Your task to perform on an android device: change notifications settings Image 0: 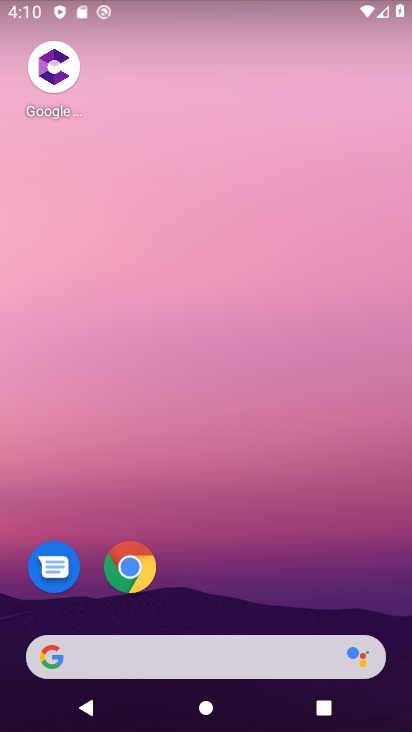
Step 0: drag from (237, 628) to (236, 30)
Your task to perform on an android device: change notifications settings Image 1: 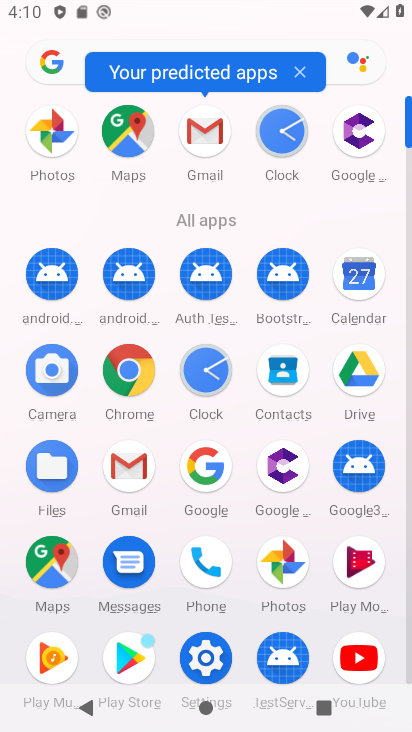
Step 1: click (200, 659)
Your task to perform on an android device: change notifications settings Image 2: 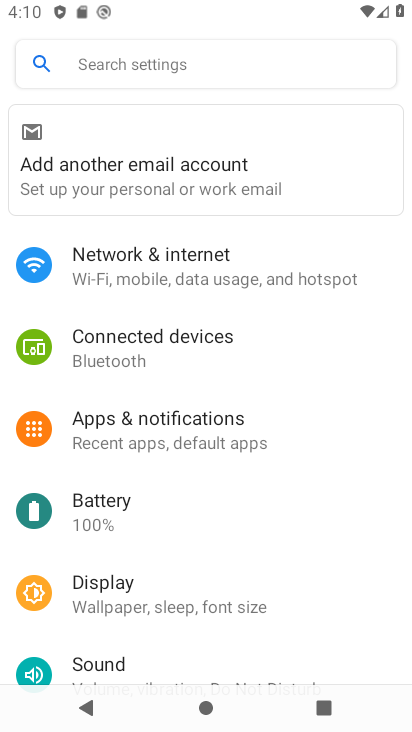
Step 2: click (180, 429)
Your task to perform on an android device: change notifications settings Image 3: 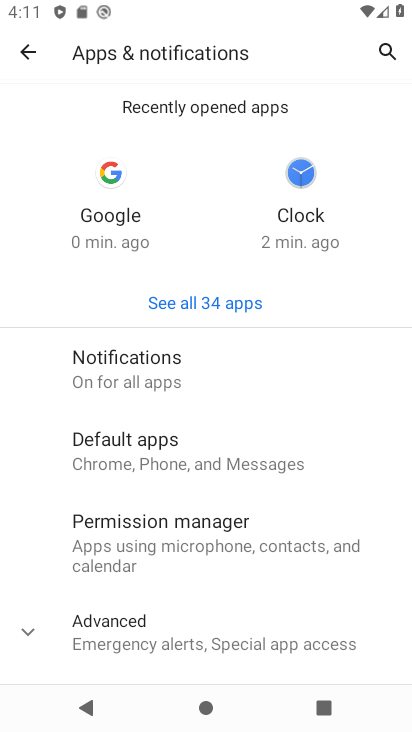
Step 3: click (162, 349)
Your task to perform on an android device: change notifications settings Image 4: 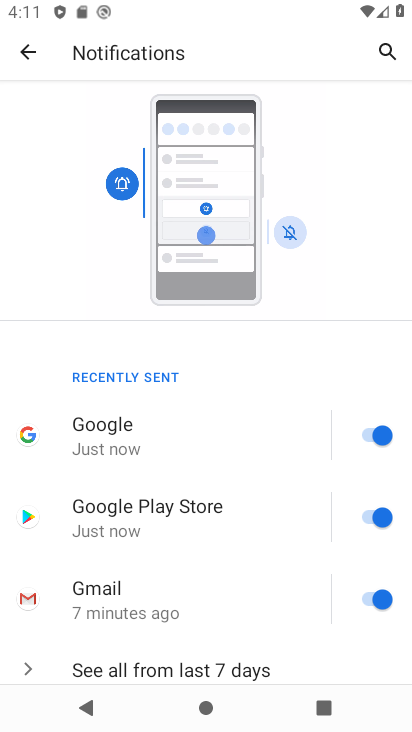
Step 4: drag from (173, 611) to (149, 292)
Your task to perform on an android device: change notifications settings Image 5: 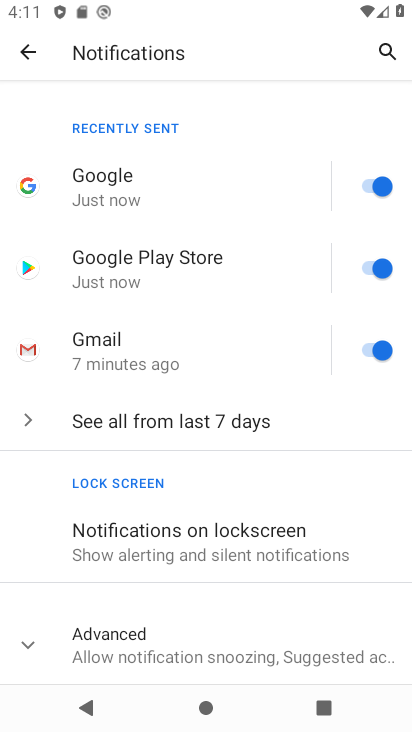
Step 5: click (174, 420)
Your task to perform on an android device: change notifications settings Image 6: 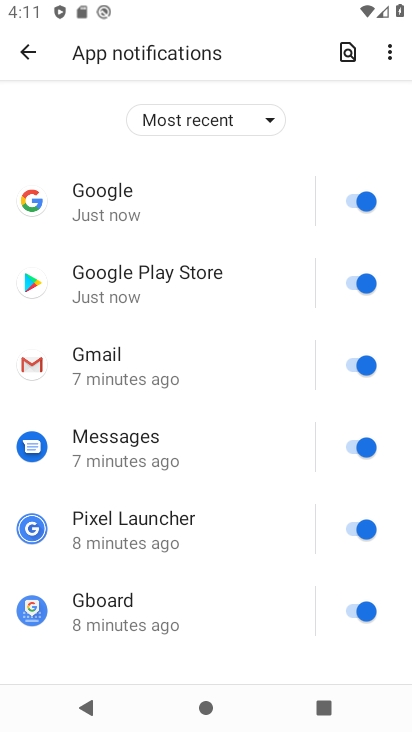
Step 6: click (366, 194)
Your task to perform on an android device: change notifications settings Image 7: 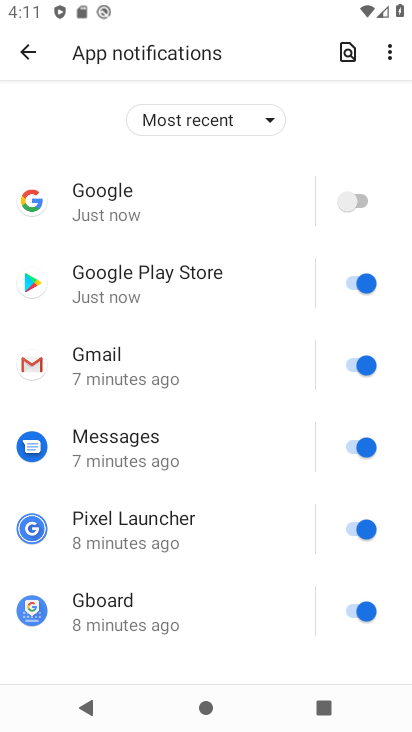
Step 7: click (369, 281)
Your task to perform on an android device: change notifications settings Image 8: 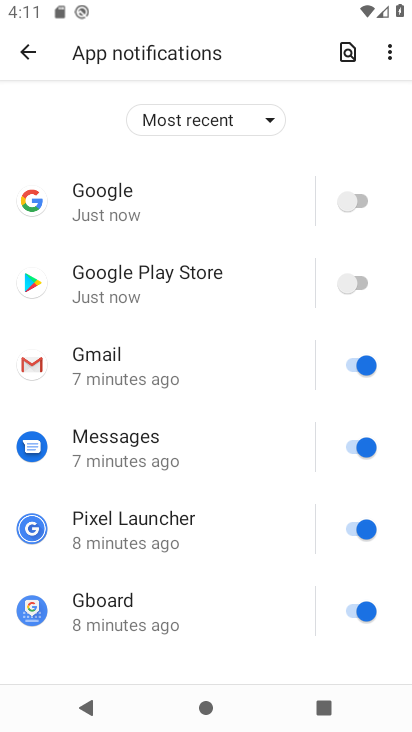
Step 8: click (372, 366)
Your task to perform on an android device: change notifications settings Image 9: 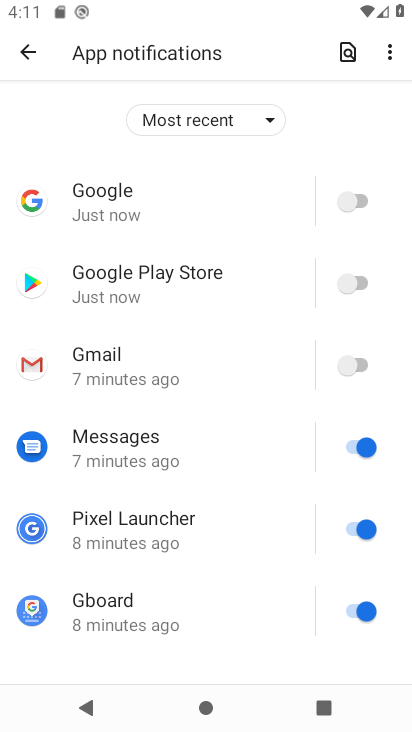
Step 9: click (352, 443)
Your task to perform on an android device: change notifications settings Image 10: 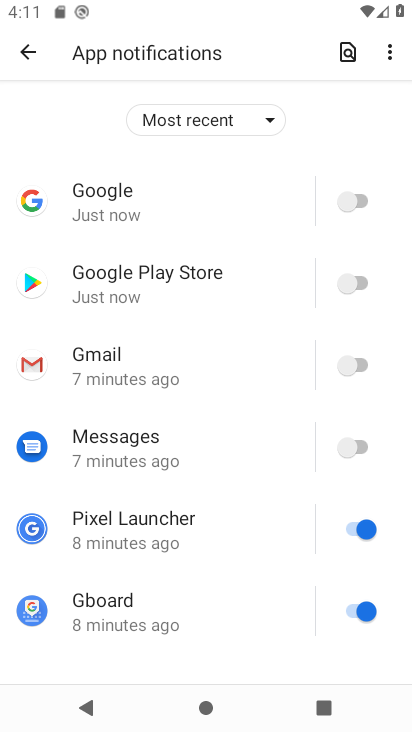
Step 10: click (360, 533)
Your task to perform on an android device: change notifications settings Image 11: 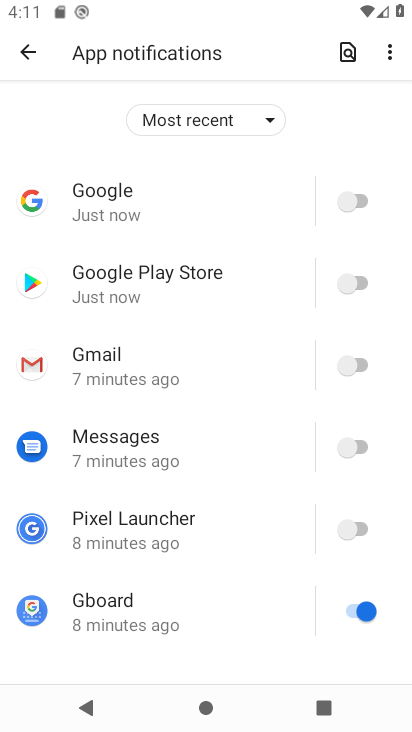
Step 11: click (361, 615)
Your task to perform on an android device: change notifications settings Image 12: 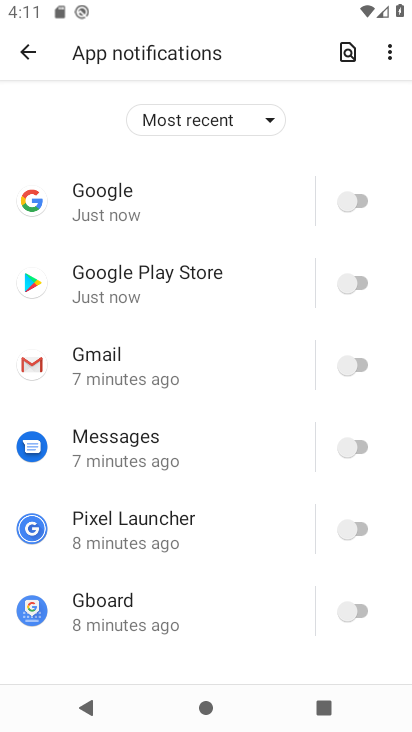
Step 12: drag from (235, 629) to (194, 178)
Your task to perform on an android device: change notifications settings Image 13: 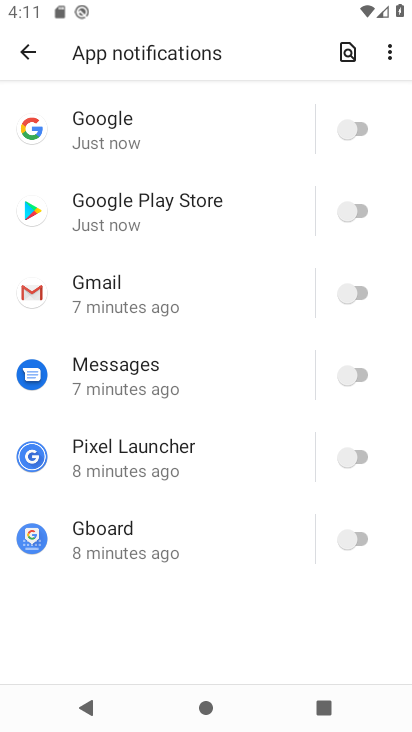
Step 13: click (33, 62)
Your task to perform on an android device: change notifications settings Image 14: 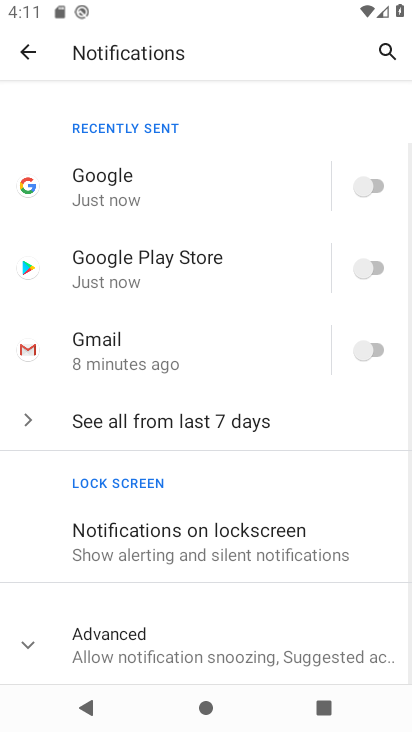
Step 14: click (217, 542)
Your task to perform on an android device: change notifications settings Image 15: 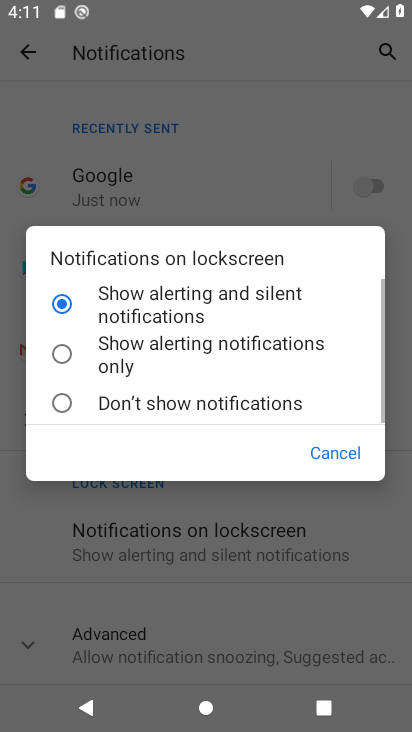
Step 15: click (180, 338)
Your task to perform on an android device: change notifications settings Image 16: 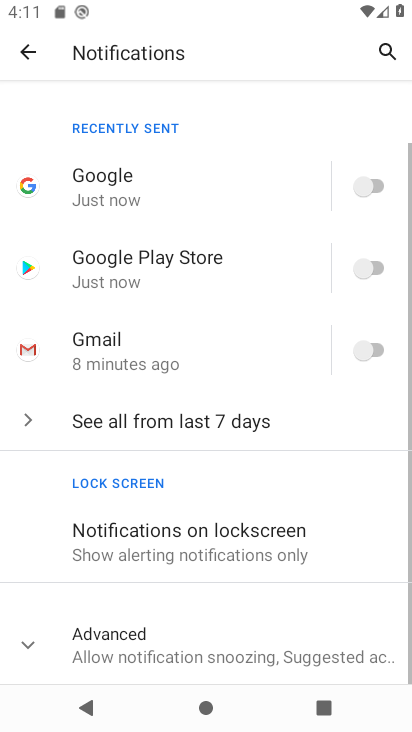
Step 16: click (202, 634)
Your task to perform on an android device: change notifications settings Image 17: 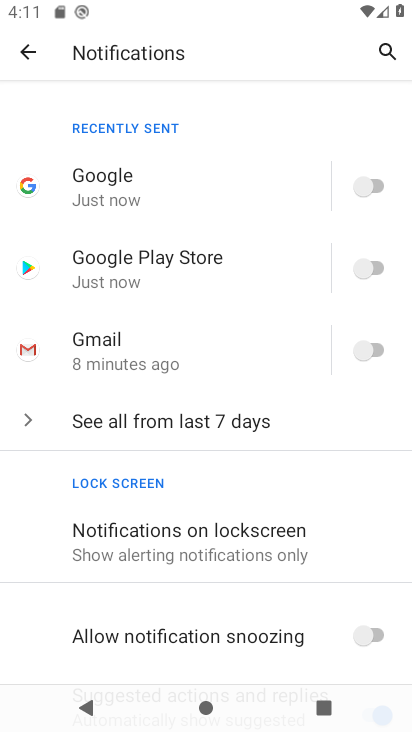
Step 17: drag from (185, 604) to (269, 123)
Your task to perform on an android device: change notifications settings Image 18: 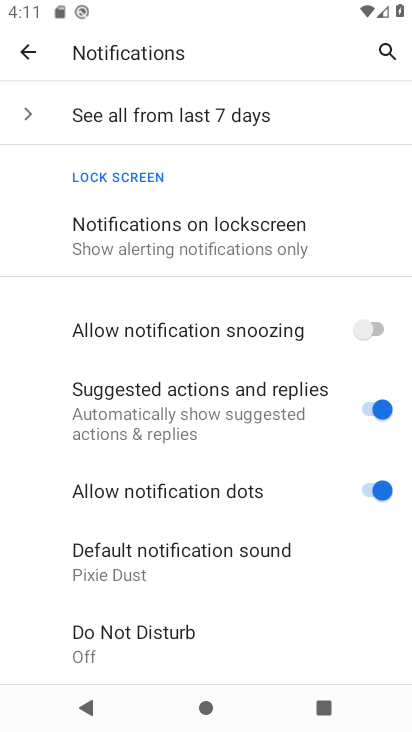
Step 18: click (371, 335)
Your task to perform on an android device: change notifications settings Image 19: 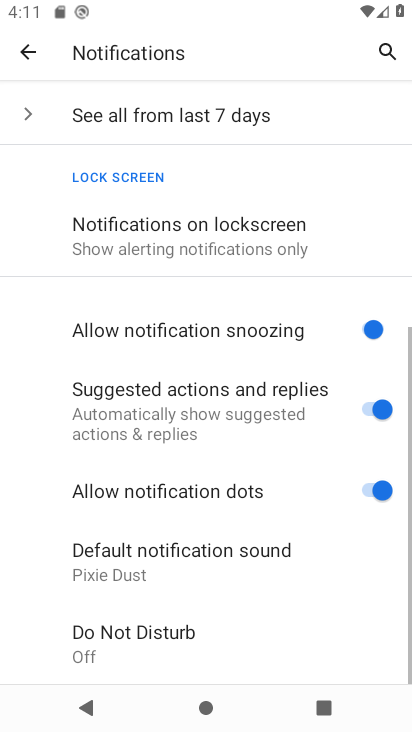
Step 19: click (382, 400)
Your task to perform on an android device: change notifications settings Image 20: 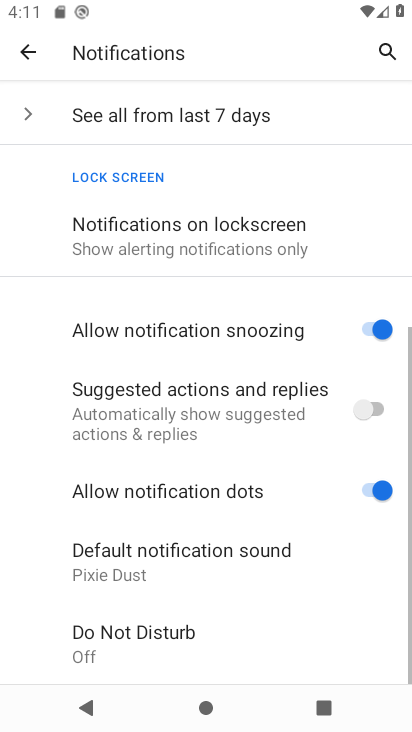
Step 20: click (377, 487)
Your task to perform on an android device: change notifications settings Image 21: 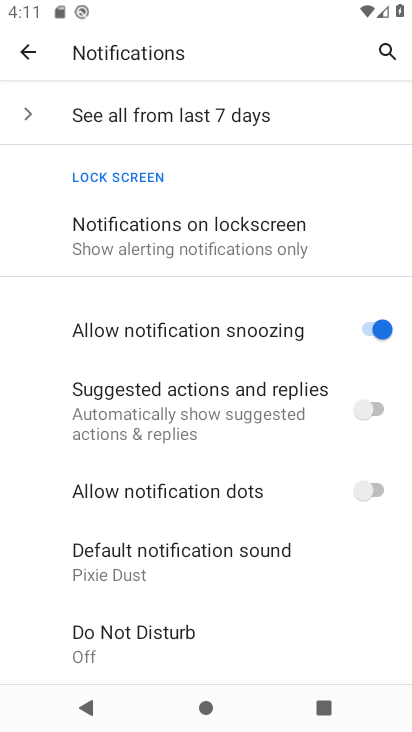
Step 21: task complete